Your task to perform on an android device: Show me popular games on the Play Store Image 0: 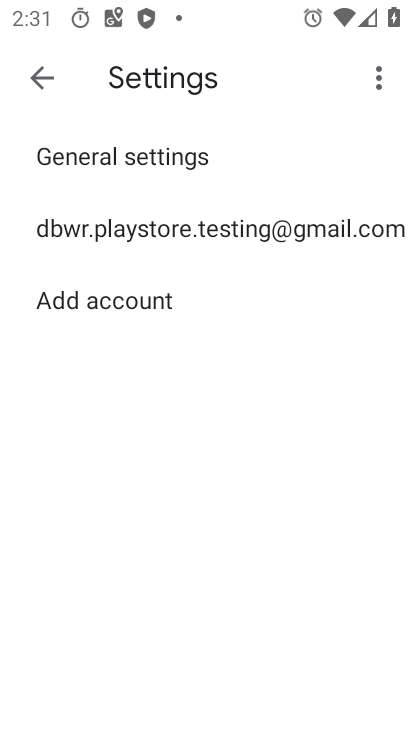
Step 0: press back button
Your task to perform on an android device: Show me popular games on the Play Store Image 1: 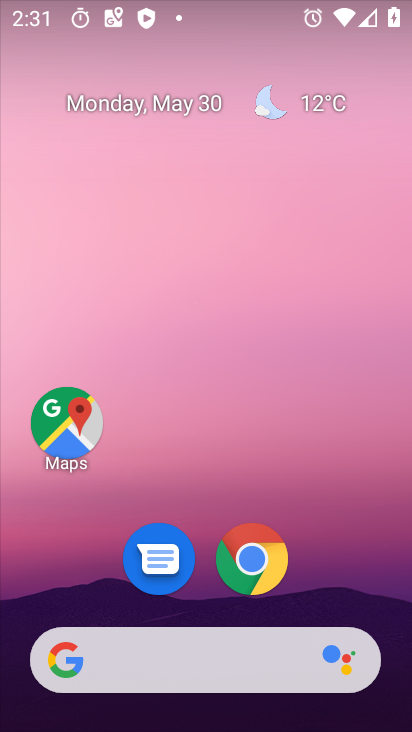
Step 1: drag from (171, 469) to (191, 119)
Your task to perform on an android device: Show me popular games on the Play Store Image 2: 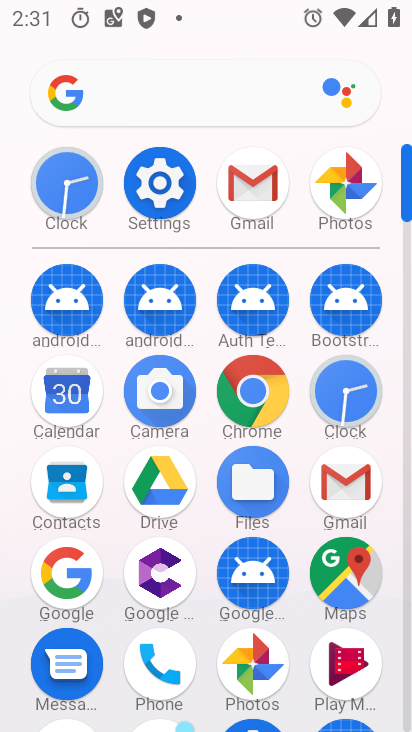
Step 2: drag from (191, 623) to (305, 88)
Your task to perform on an android device: Show me popular games on the Play Store Image 3: 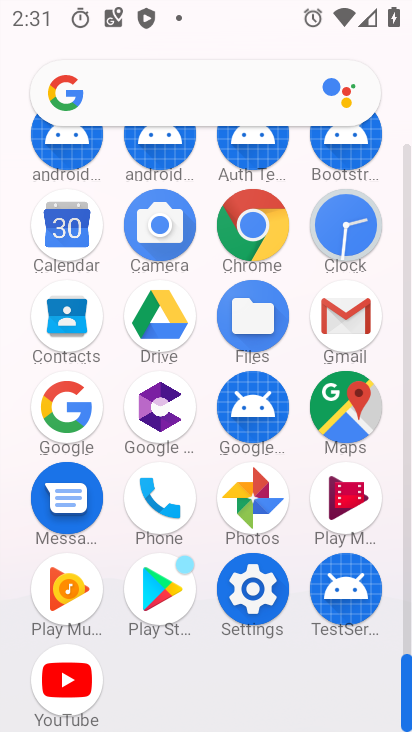
Step 3: click (164, 592)
Your task to perform on an android device: Show me popular games on the Play Store Image 4: 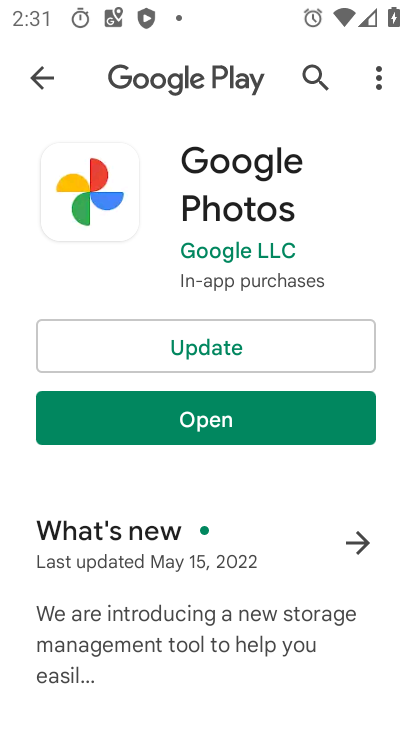
Step 4: click (47, 66)
Your task to perform on an android device: Show me popular games on the Play Store Image 5: 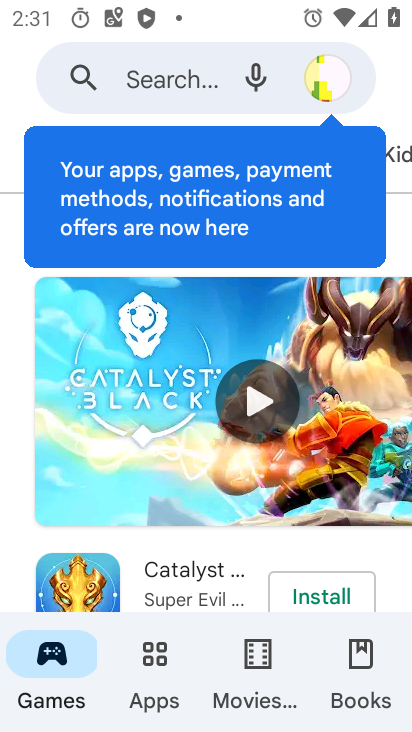
Step 5: click (59, 650)
Your task to perform on an android device: Show me popular games on the Play Store Image 6: 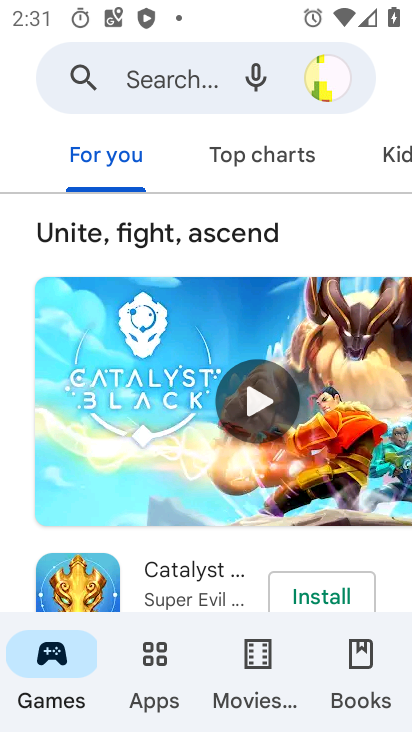
Step 6: drag from (224, 521) to (279, 60)
Your task to perform on an android device: Show me popular games on the Play Store Image 7: 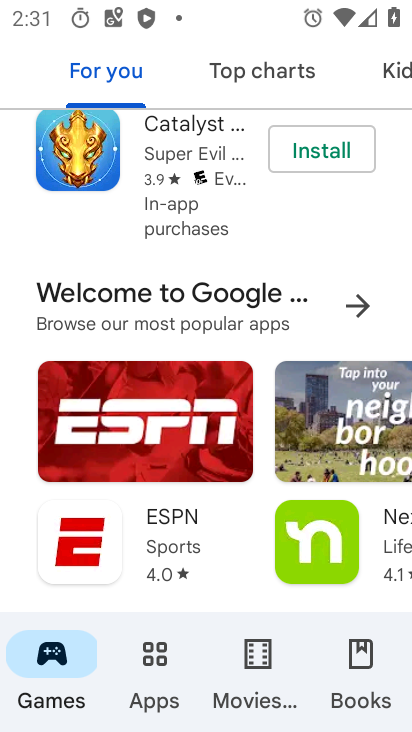
Step 7: drag from (185, 530) to (306, 39)
Your task to perform on an android device: Show me popular games on the Play Store Image 8: 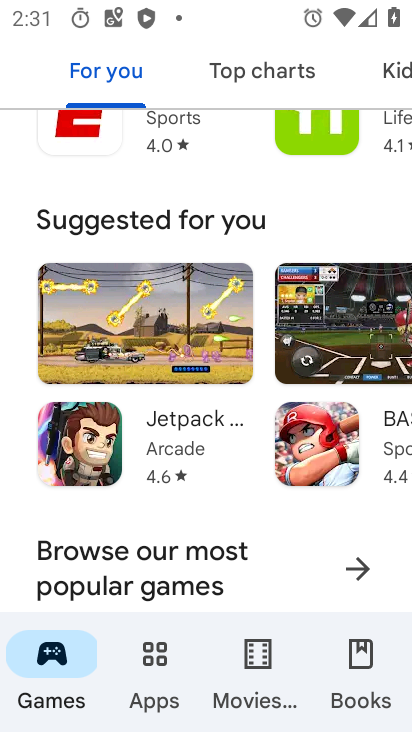
Step 8: drag from (209, 510) to (257, 170)
Your task to perform on an android device: Show me popular games on the Play Store Image 9: 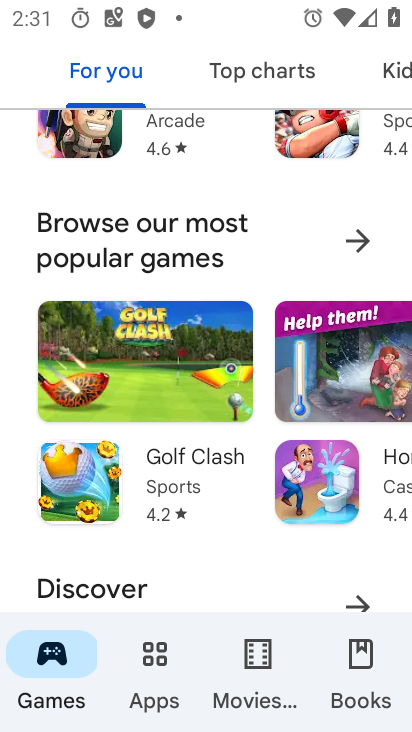
Step 9: click (349, 235)
Your task to perform on an android device: Show me popular games on the Play Store Image 10: 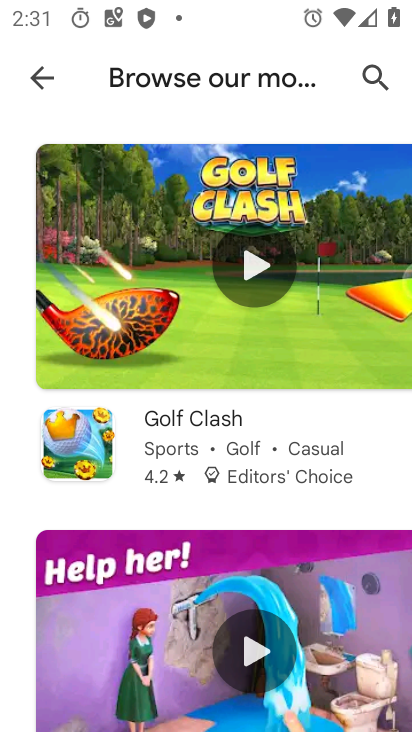
Step 10: task complete